Your task to perform on an android device: check the backup settings in the google photos Image 0: 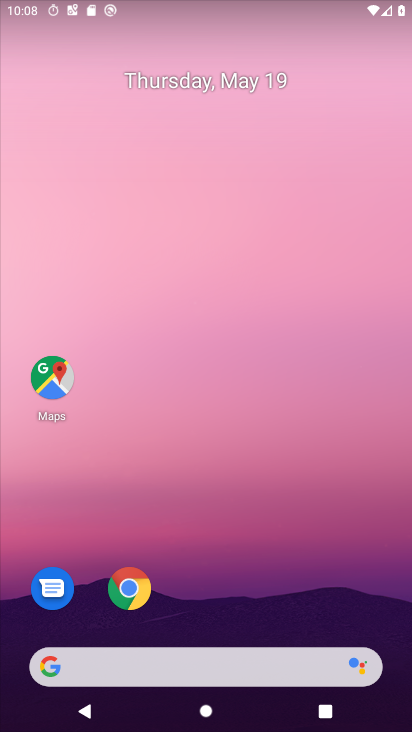
Step 0: press home button
Your task to perform on an android device: check the backup settings in the google photos Image 1: 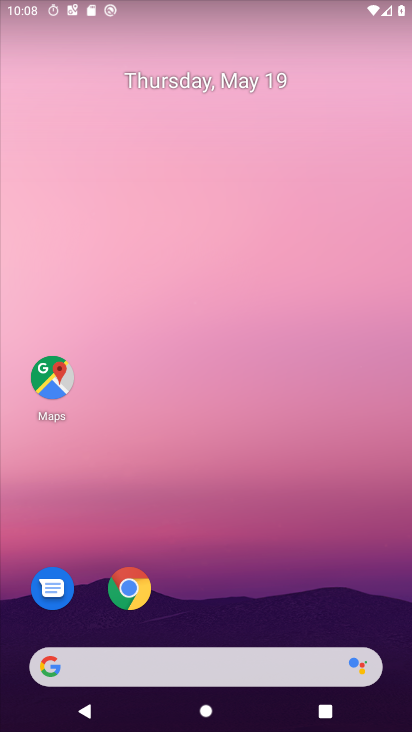
Step 1: drag from (132, 671) to (306, 61)
Your task to perform on an android device: check the backup settings in the google photos Image 2: 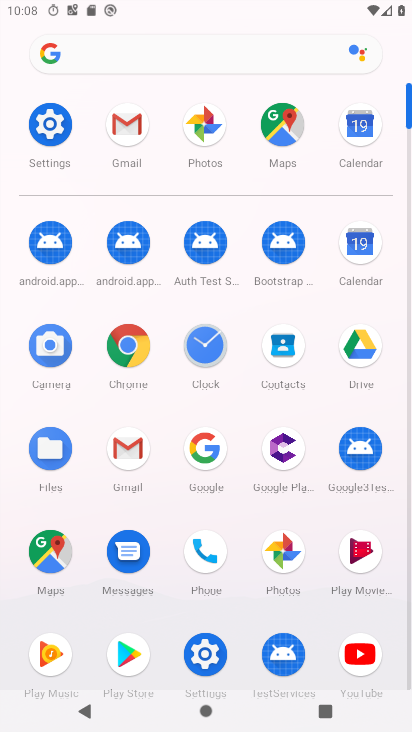
Step 2: click (267, 557)
Your task to perform on an android device: check the backup settings in the google photos Image 3: 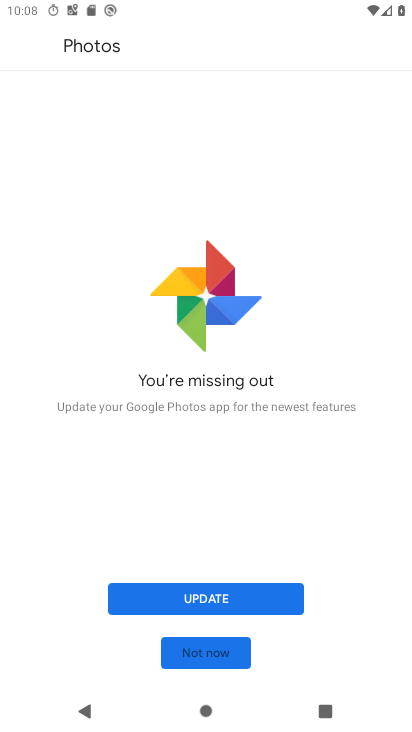
Step 3: click (209, 595)
Your task to perform on an android device: check the backup settings in the google photos Image 4: 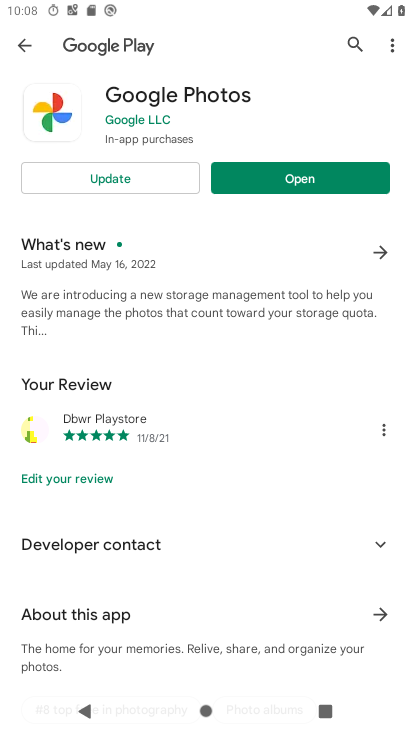
Step 4: click (149, 177)
Your task to perform on an android device: check the backup settings in the google photos Image 5: 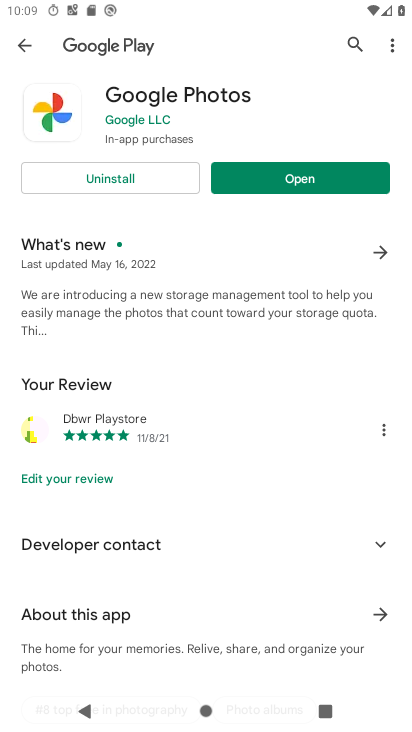
Step 5: click (287, 180)
Your task to perform on an android device: check the backup settings in the google photos Image 6: 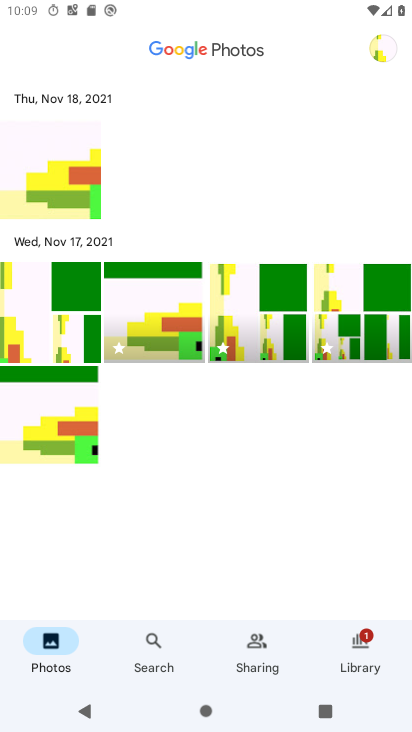
Step 6: click (379, 53)
Your task to perform on an android device: check the backup settings in the google photos Image 7: 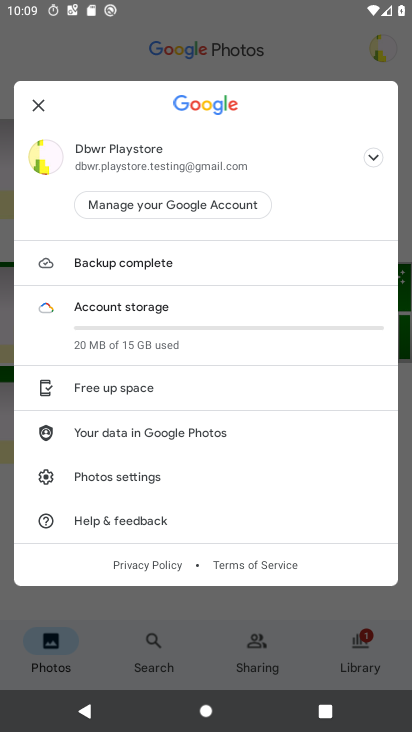
Step 7: click (125, 477)
Your task to perform on an android device: check the backup settings in the google photos Image 8: 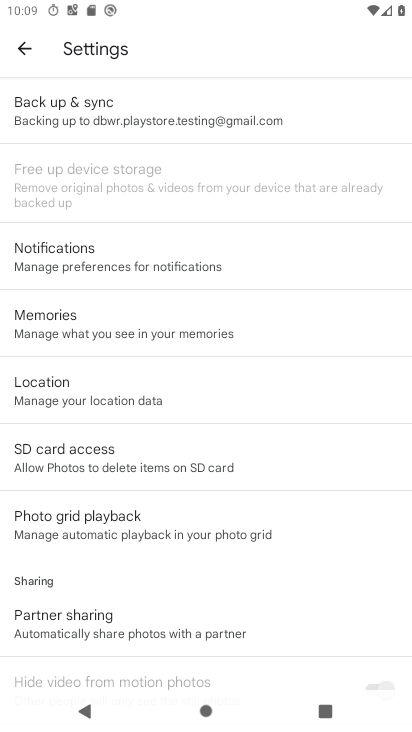
Step 8: click (169, 119)
Your task to perform on an android device: check the backup settings in the google photos Image 9: 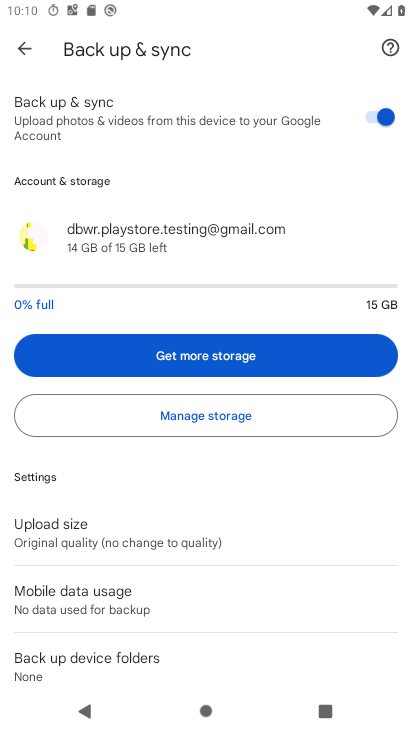
Step 9: task complete